Your task to perform on an android device: open a bookmark in the chrome app Image 0: 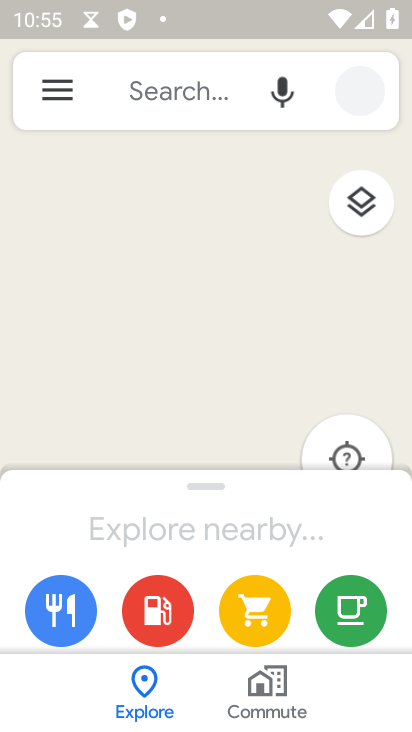
Step 0: press home button
Your task to perform on an android device: open a bookmark in the chrome app Image 1: 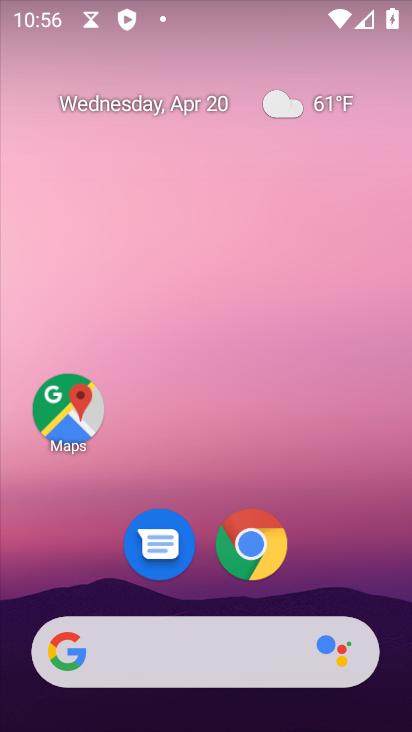
Step 1: drag from (138, 653) to (282, 113)
Your task to perform on an android device: open a bookmark in the chrome app Image 2: 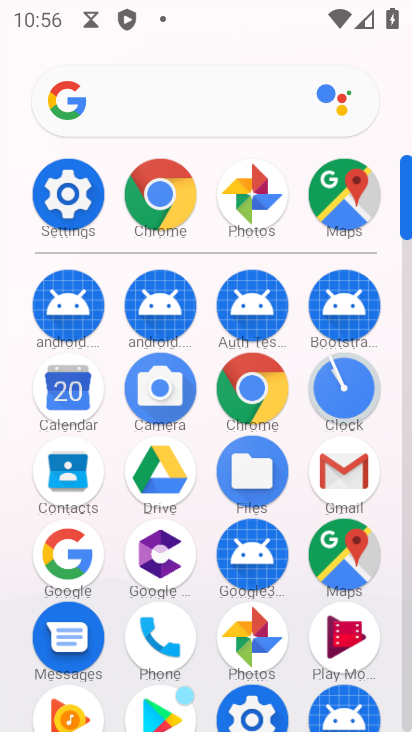
Step 2: click (155, 192)
Your task to perform on an android device: open a bookmark in the chrome app Image 3: 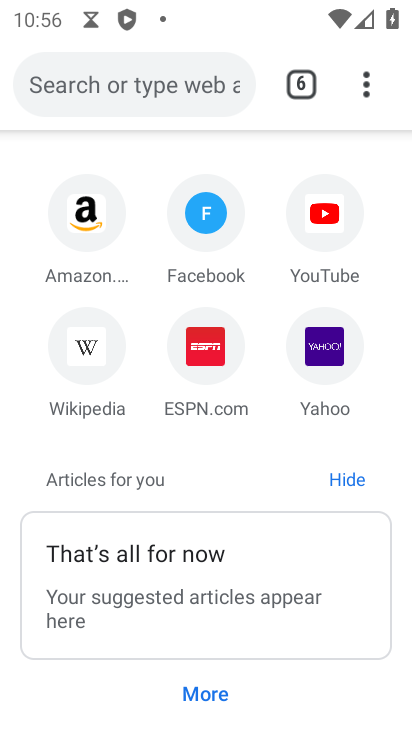
Step 3: click (360, 94)
Your task to perform on an android device: open a bookmark in the chrome app Image 4: 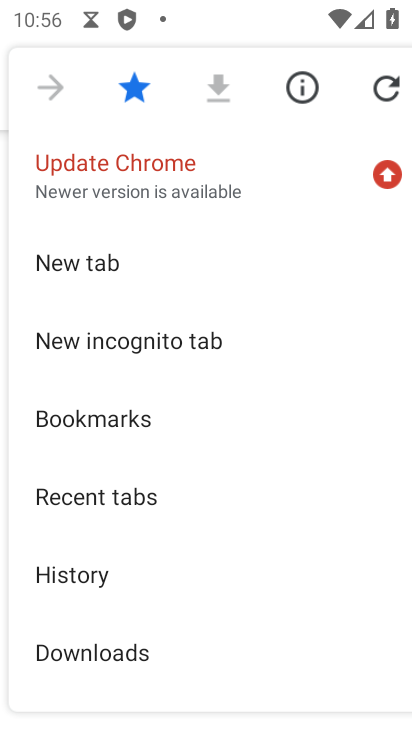
Step 4: click (126, 419)
Your task to perform on an android device: open a bookmark in the chrome app Image 5: 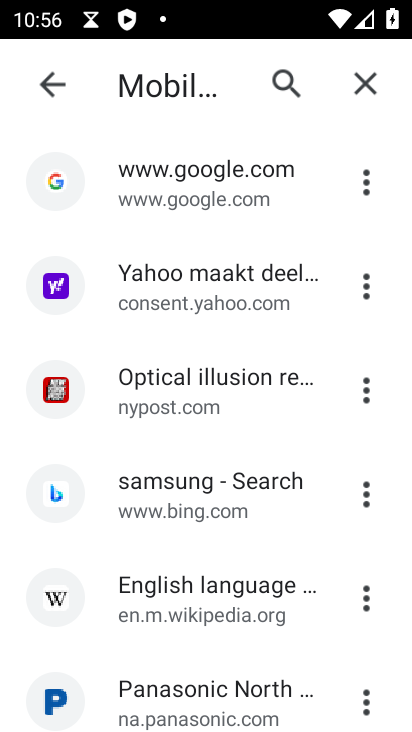
Step 5: click (362, 187)
Your task to perform on an android device: open a bookmark in the chrome app Image 6: 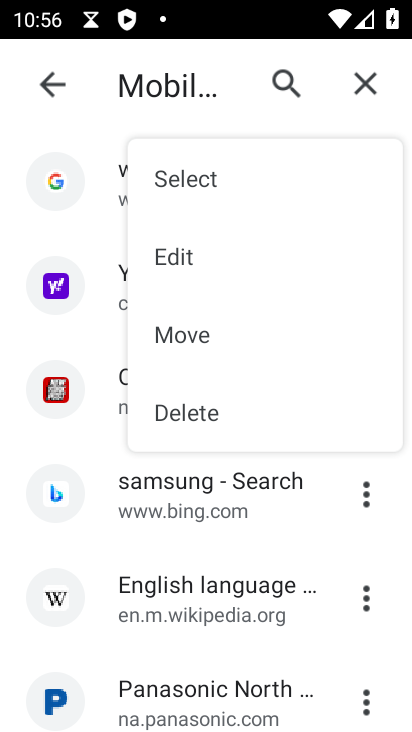
Step 6: click (175, 411)
Your task to perform on an android device: open a bookmark in the chrome app Image 7: 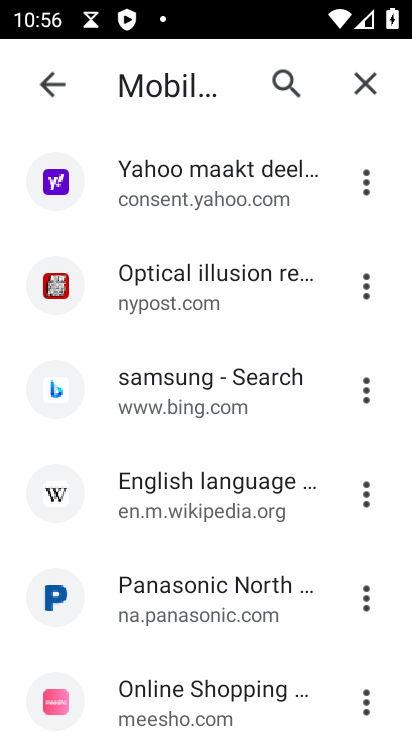
Step 7: task complete